Your task to perform on an android device: turn off airplane mode Image 0: 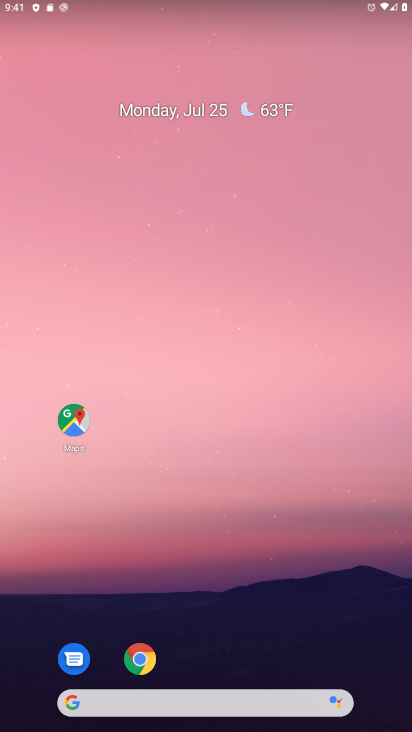
Step 0: drag from (210, 717) to (196, 206)
Your task to perform on an android device: turn off airplane mode Image 1: 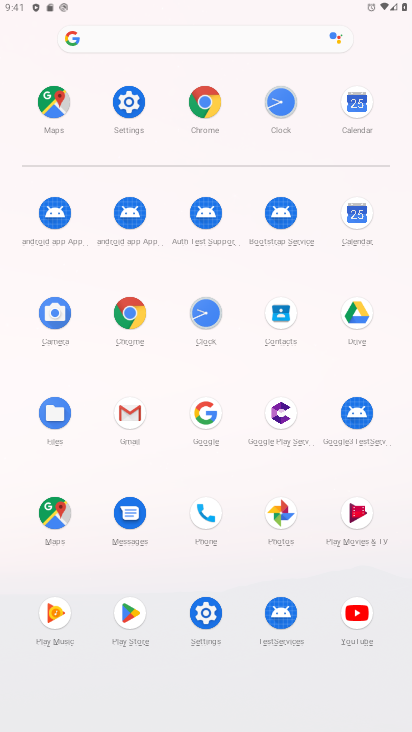
Step 1: click (126, 98)
Your task to perform on an android device: turn off airplane mode Image 2: 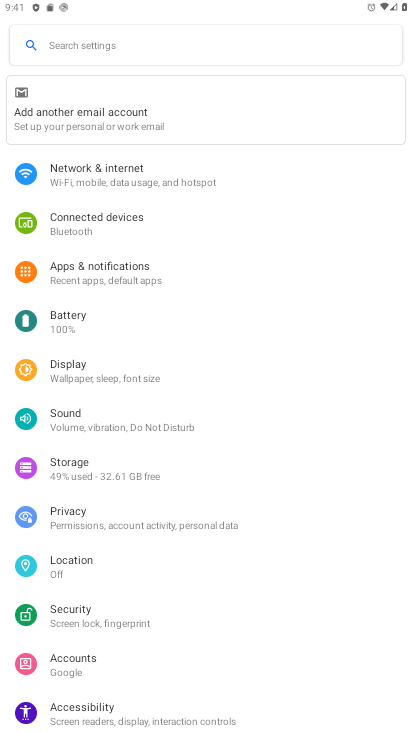
Step 2: click (87, 179)
Your task to perform on an android device: turn off airplane mode Image 3: 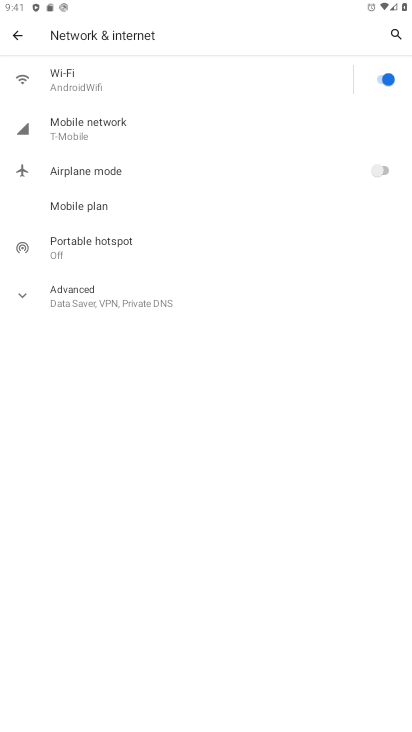
Step 3: task complete